Your task to perform on an android device: Open settings on Google Maps Image 0: 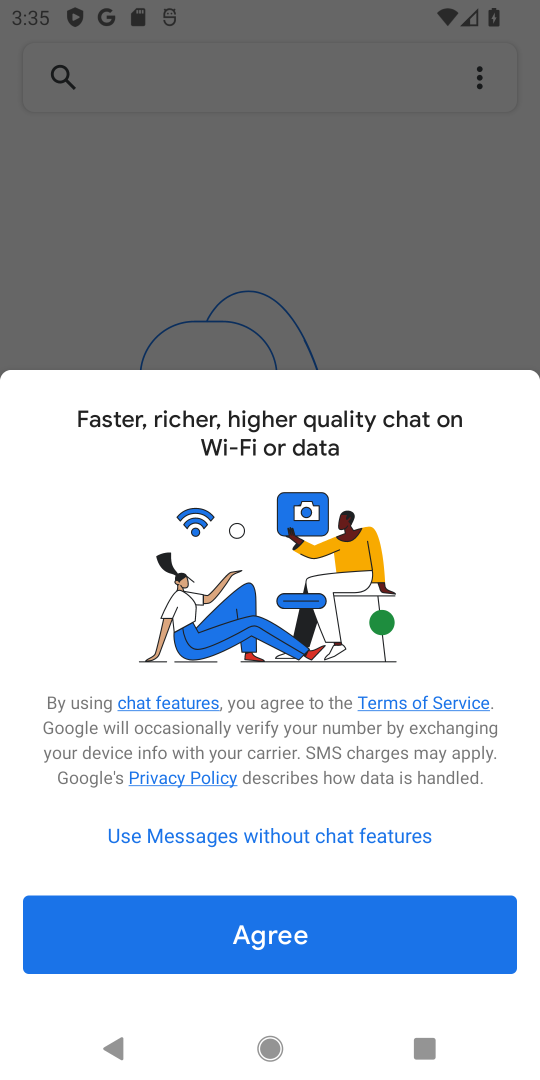
Step 0: press home button
Your task to perform on an android device: Open settings on Google Maps Image 1: 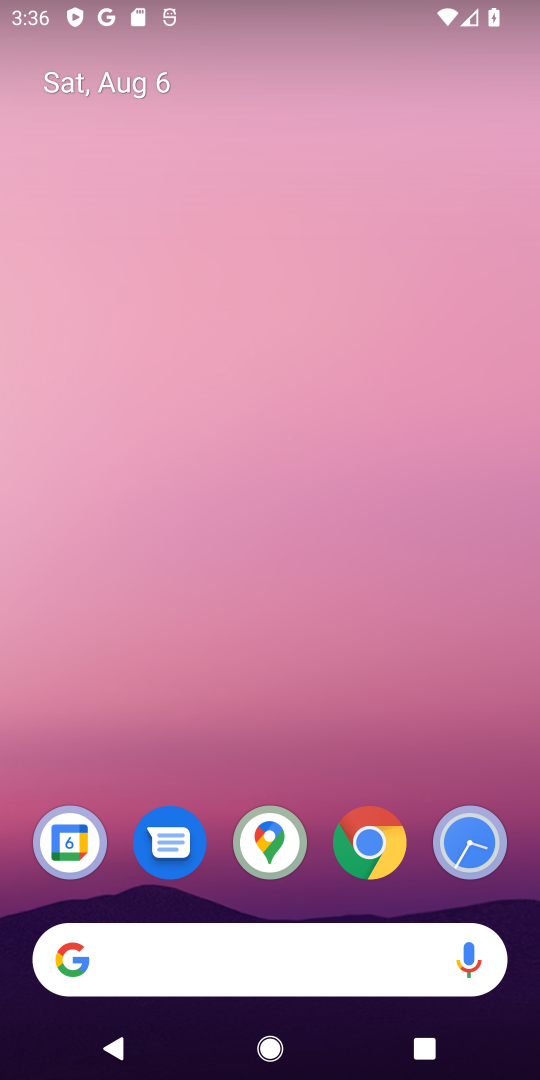
Step 1: click (266, 848)
Your task to perform on an android device: Open settings on Google Maps Image 2: 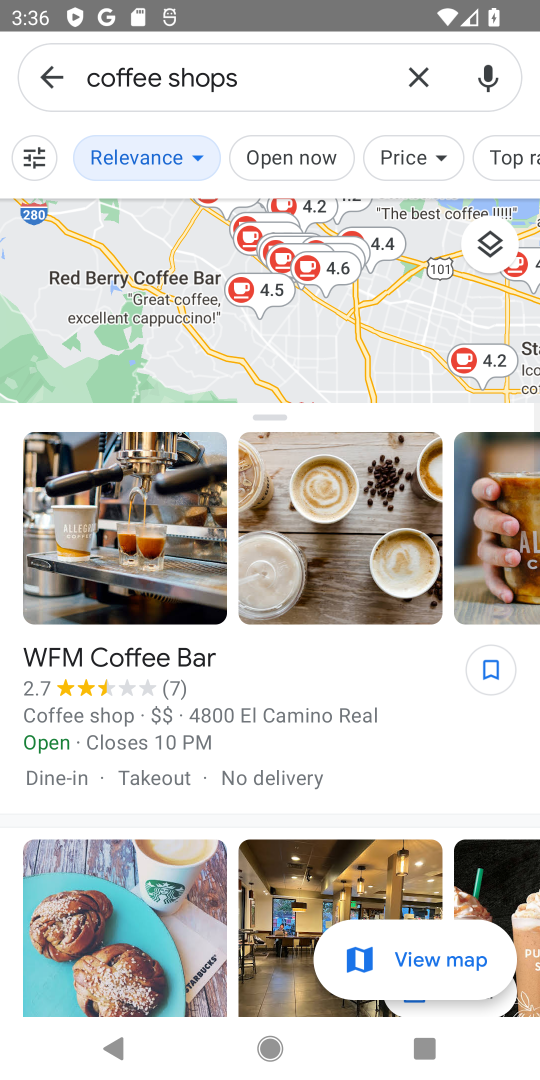
Step 2: click (416, 68)
Your task to perform on an android device: Open settings on Google Maps Image 3: 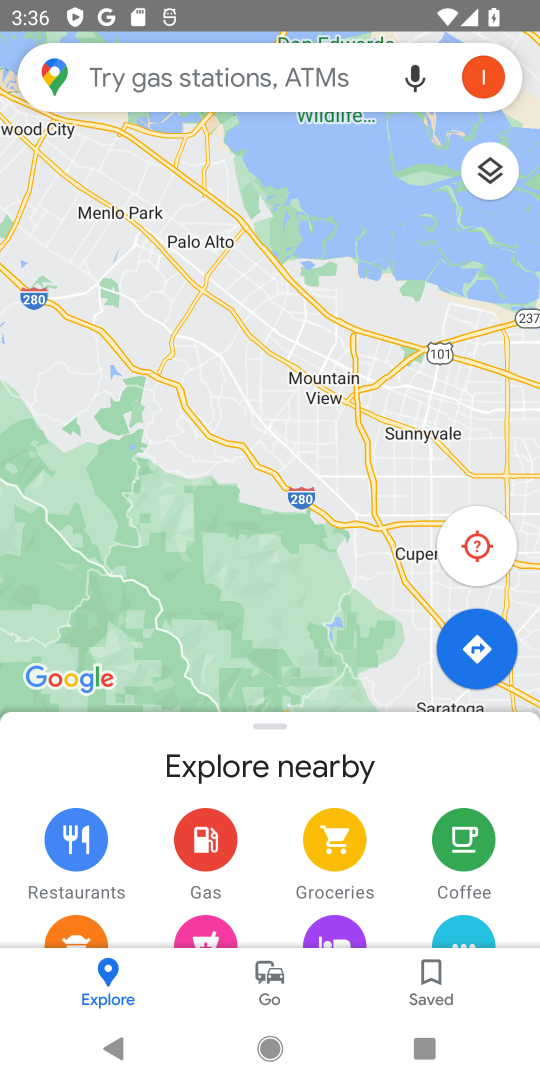
Step 3: drag from (299, 668) to (327, 257)
Your task to perform on an android device: Open settings on Google Maps Image 4: 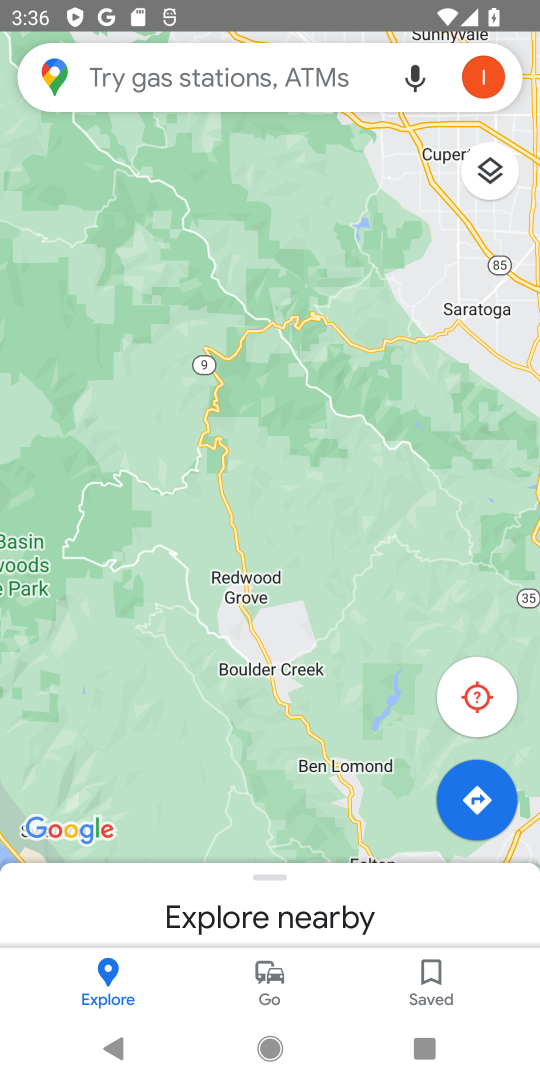
Step 4: drag from (299, 178) to (319, 771)
Your task to perform on an android device: Open settings on Google Maps Image 5: 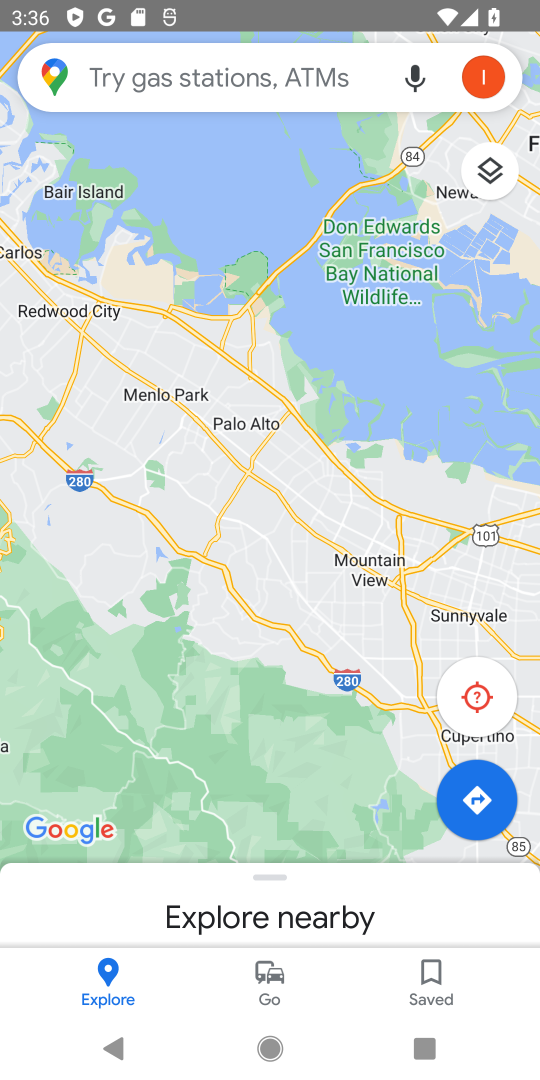
Step 5: drag from (283, 175) to (311, 684)
Your task to perform on an android device: Open settings on Google Maps Image 6: 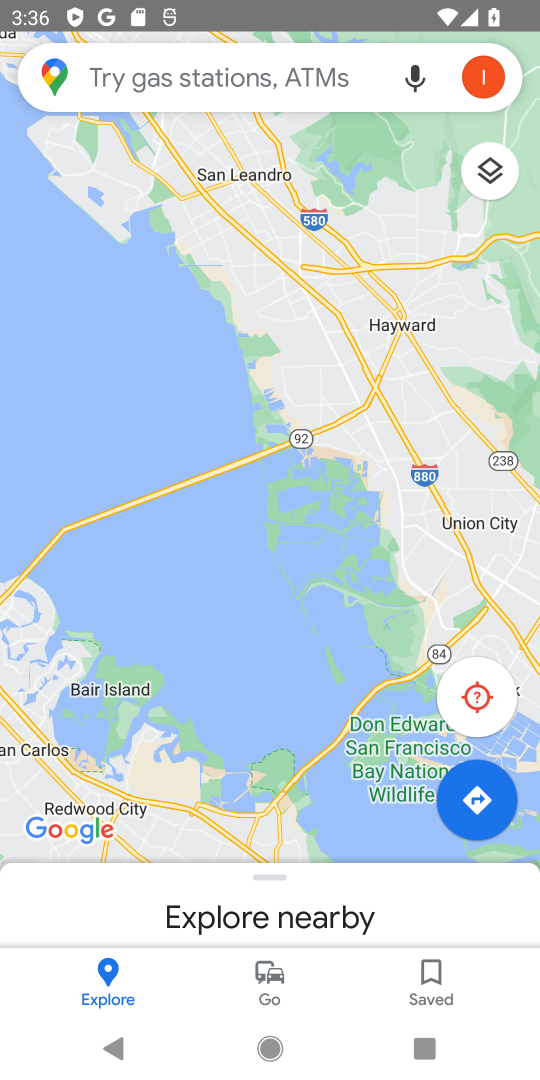
Step 6: drag from (349, 606) to (358, 693)
Your task to perform on an android device: Open settings on Google Maps Image 7: 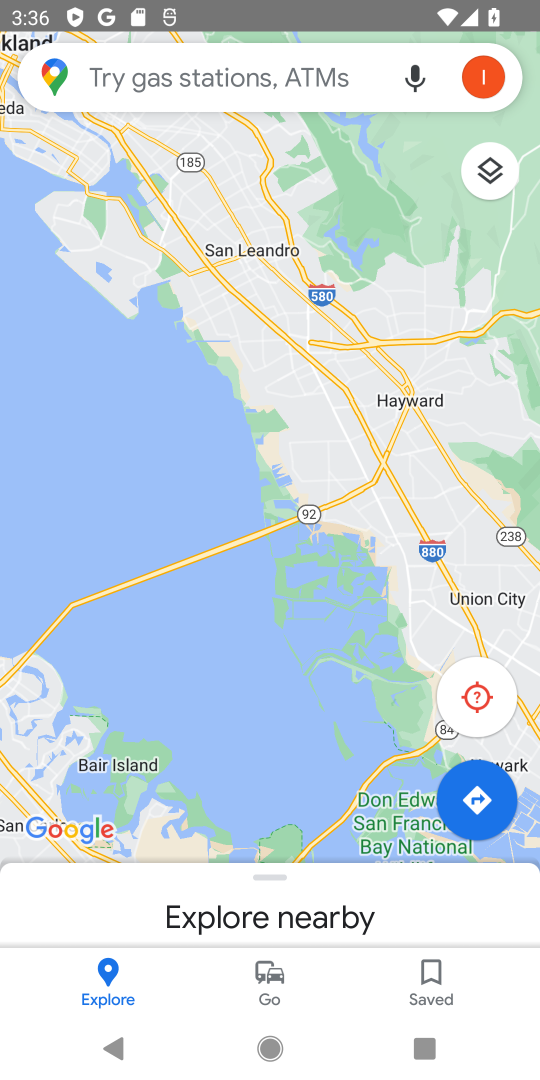
Step 7: drag from (142, 633) to (339, 565)
Your task to perform on an android device: Open settings on Google Maps Image 8: 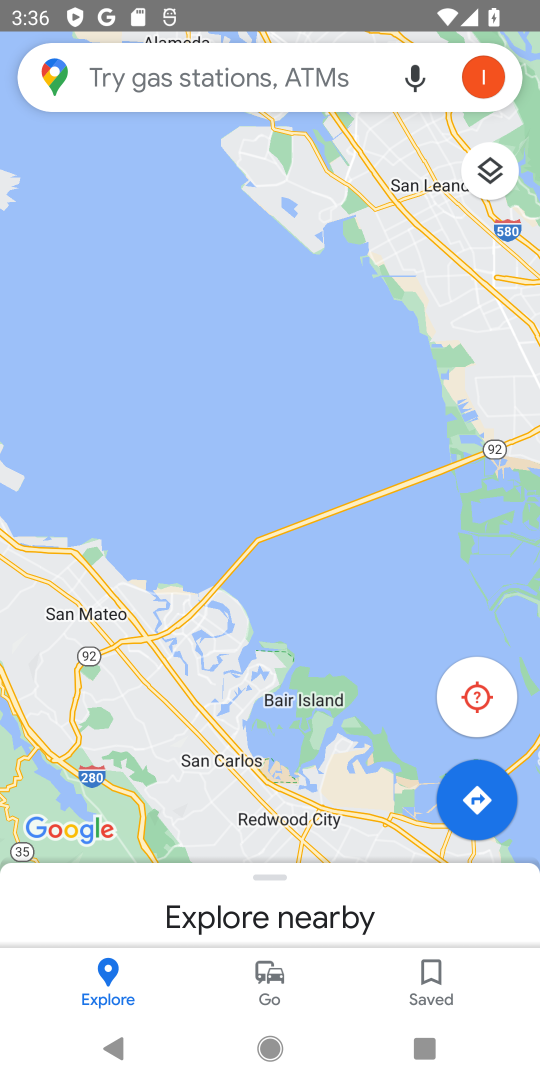
Step 8: press back button
Your task to perform on an android device: Open settings on Google Maps Image 9: 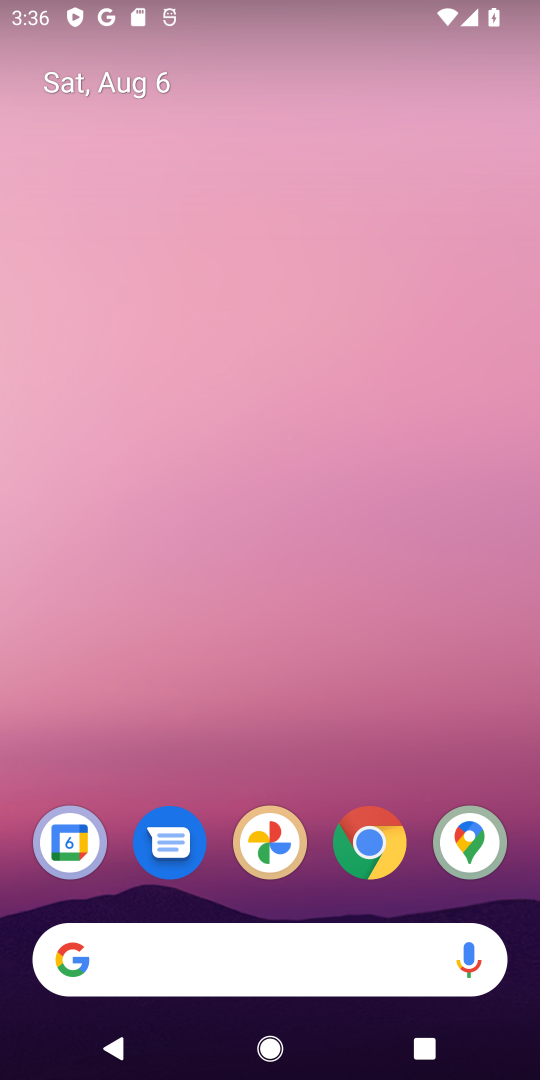
Step 9: click (472, 840)
Your task to perform on an android device: Open settings on Google Maps Image 10: 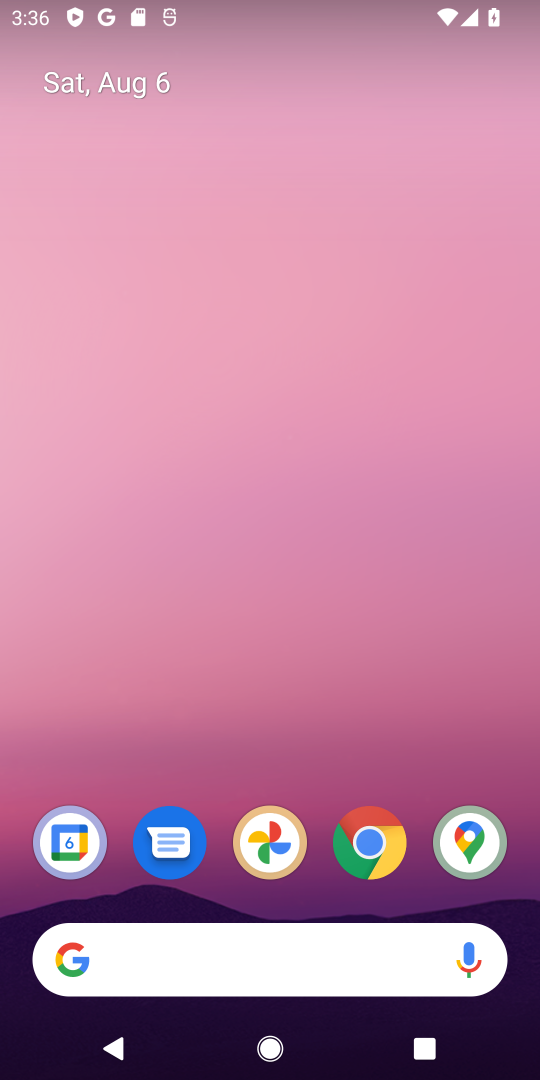
Step 10: click (471, 840)
Your task to perform on an android device: Open settings on Google Maps Image 11: 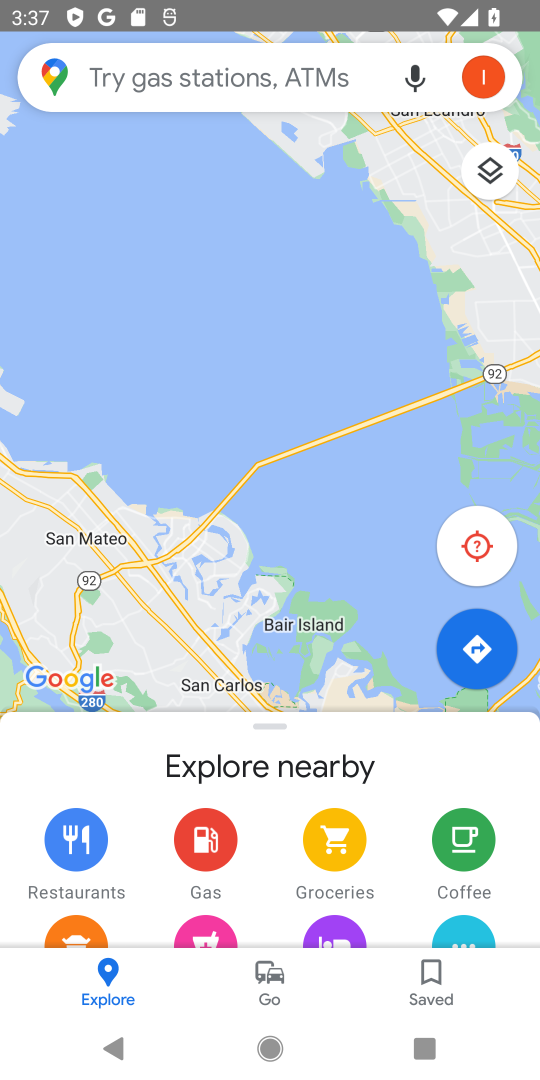
Step 11: task complete